Your task to perform on an android device: Is it going to rain this weekend? Image 0: 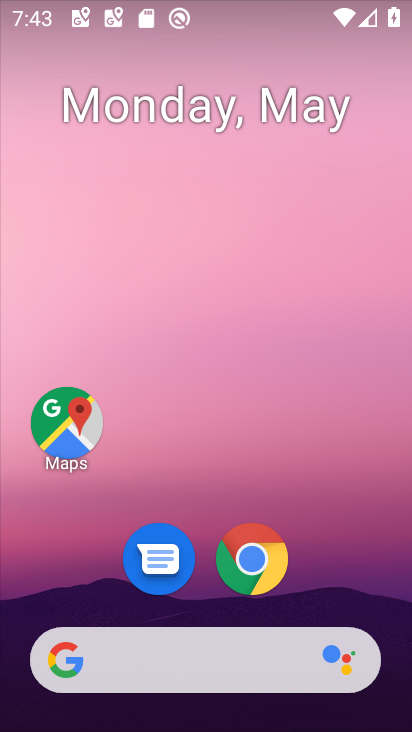
Step 0: drag from (404, 648) to (323, 43)
Your task to perform on an android device: Is it going to rain this weekend? Image 1: 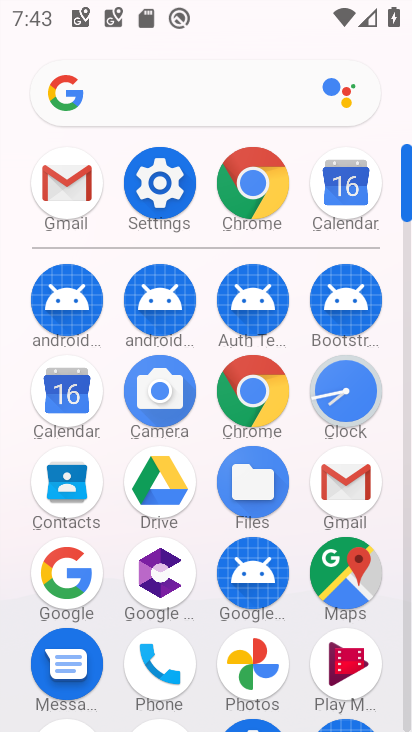
Step 1: click (73, 579)
Your task to perform on an android device: Is it going to rain this weekend? Image 2: 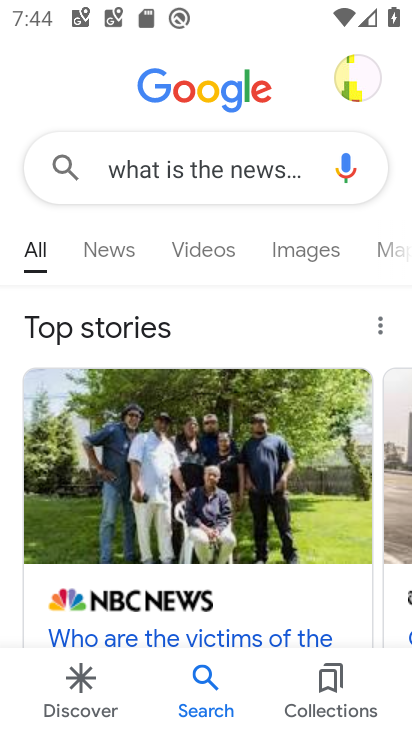
Step 2: press back button
Your task to perform on an android device: Is it going to rain this weekend? Image 3: 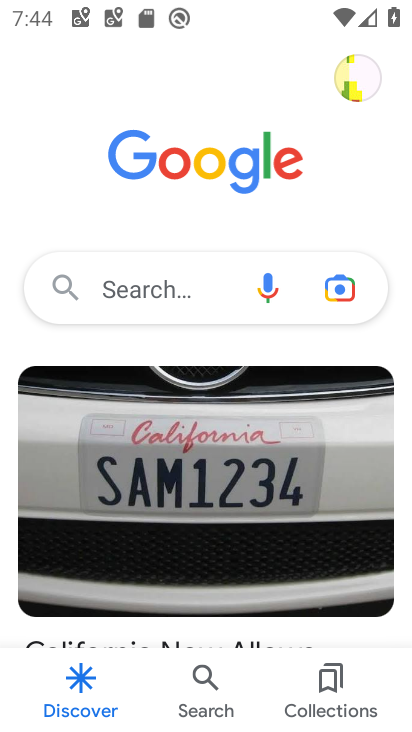
Step 3: click (156, 248)
Your task to perform on an android device: Is it going to rain this weekend? Image 4: 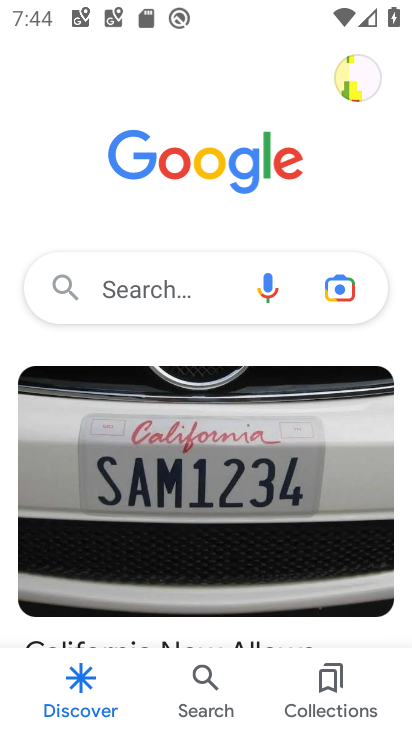
Step 4: click (162, 271)
Your task to perform on an android device: Is it going to rain this weekend? Image 5: 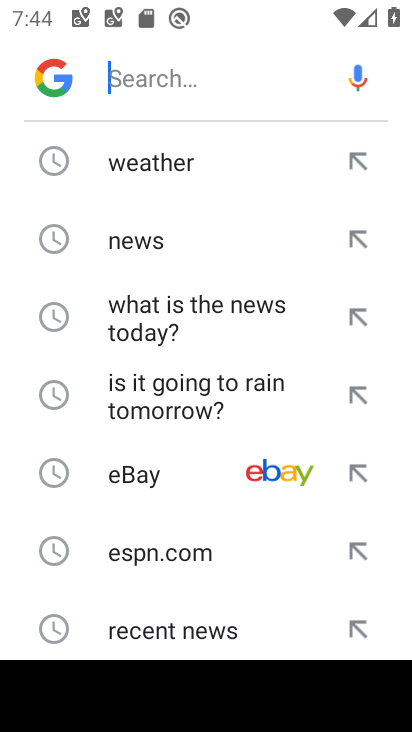
Step 5: drag from (160, 530) to (222, 199)
Your task to perform on an android device: Is it going to rain this weekend? Image 6: 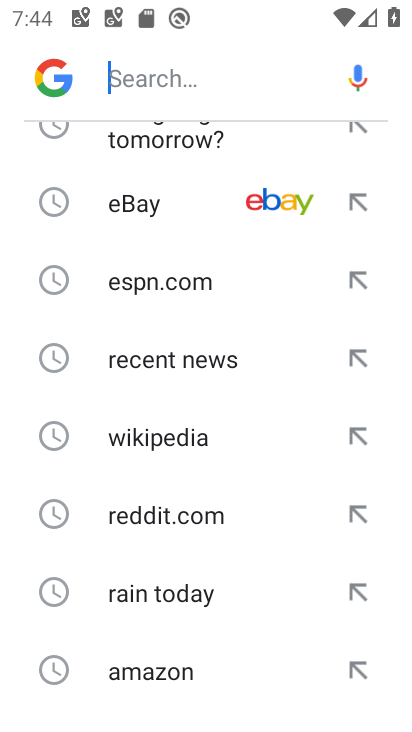
Step 6: drag from (130, 634) to (225, 193)
Your task to perform on an android device: Is it going to rain this weekend? Image 7: 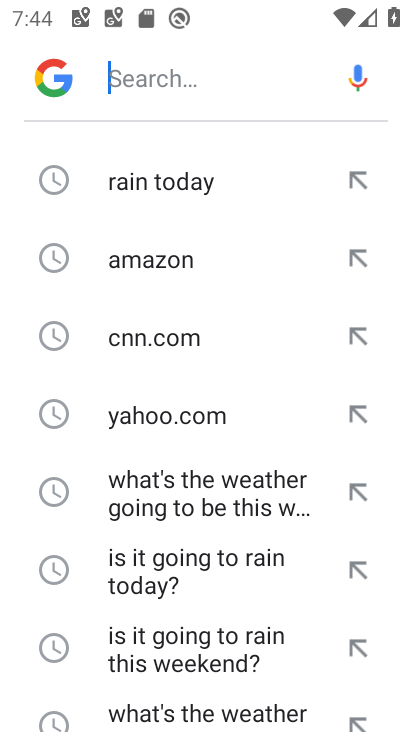
Step 7: click (199, 652)
Your task to perform on an android device: Is it going to rain this weekend? Image 8: 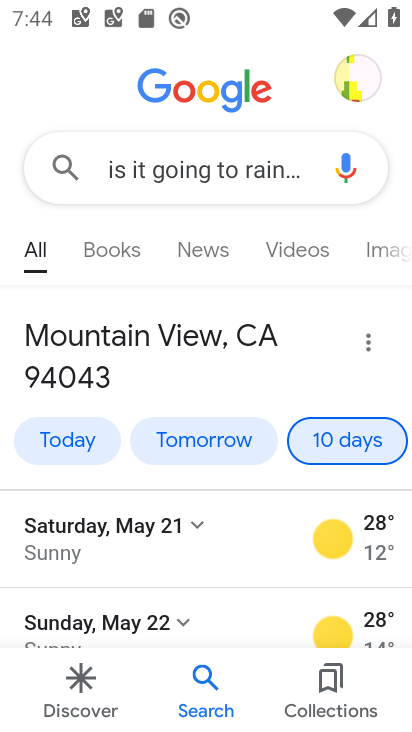
Step 8: task complete